Your task to perform on an android device: What's on my calendar today? Image 0: 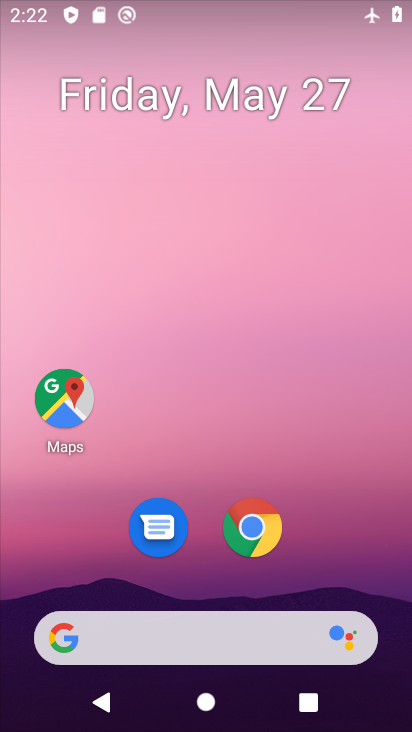
Step 0: drag from (280, 662) to (304, 9)
Your task to perform on an android device: What's on my calendar today? Image 1: 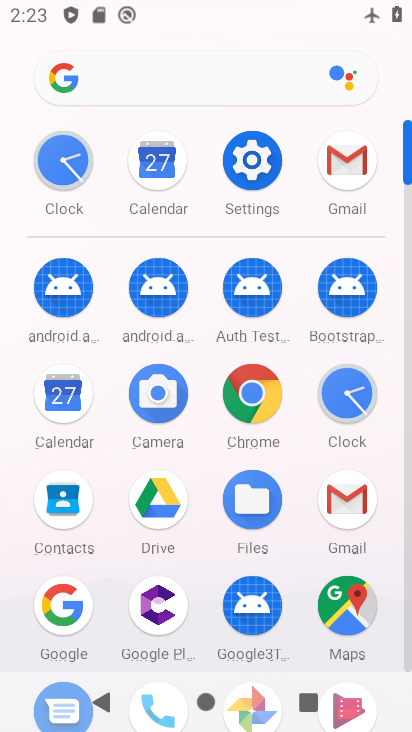
Step 1: click (172, 174)
Your task to perform on an android device: What's on my calendar today? Image 2: 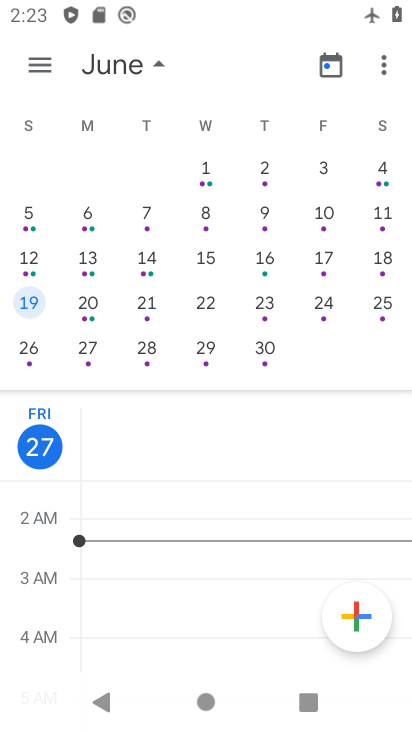
Step 2: click (46, 65)
Your task to perform on an android device: What's on my calendar today? Image 3: 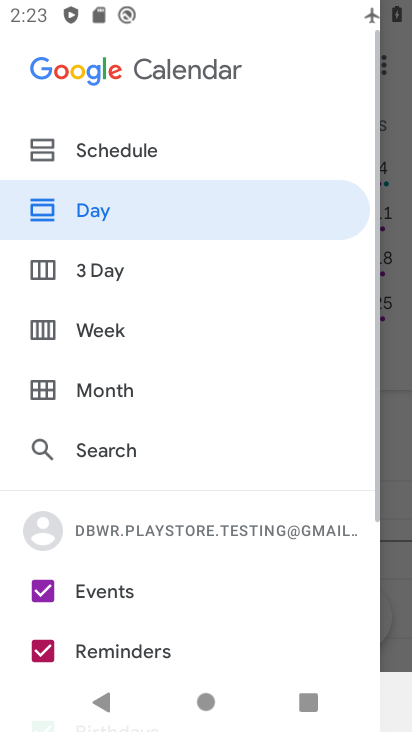
Step 3: click (125, 206)
Your task to perform on an android device: What's on my calendar today? Image 4: 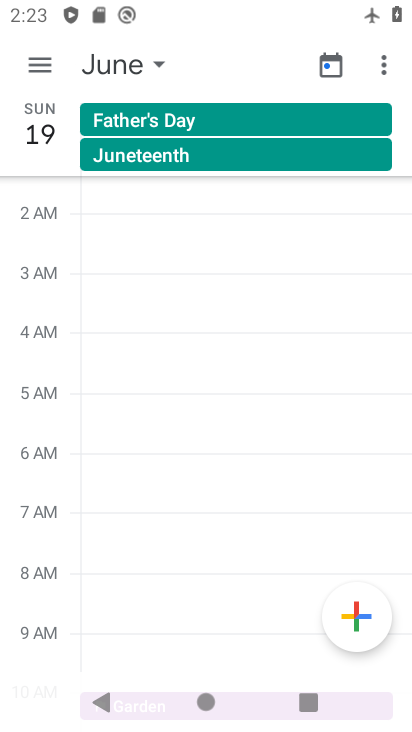
Step 4: click (135, 63)
Your task to perform on an android device: What's on my calendar today? Image 5: 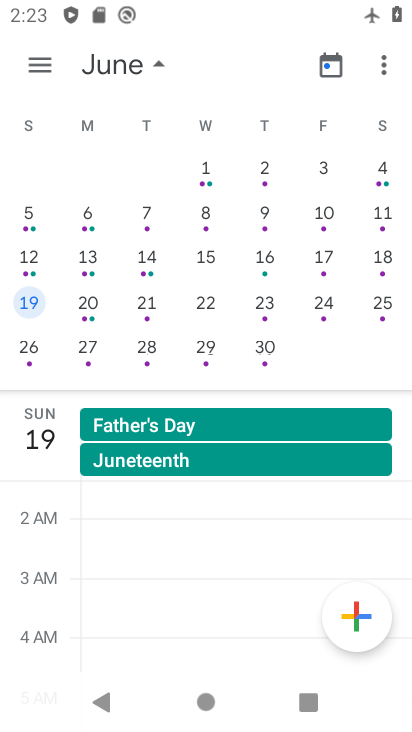
Step 5: drag from (68, 183) to (373, 220)
Your task to perform on an android device: What's on my calendar today? Image 6: 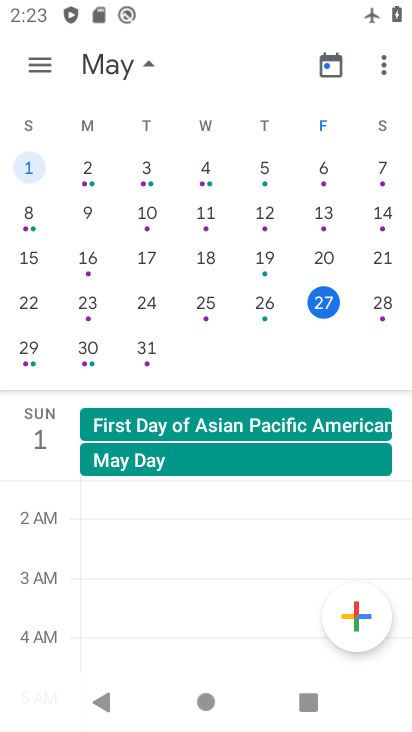
Step 6: click (332, 302)
Your task to perform on an android device: What's on my calendar today? Image 7: 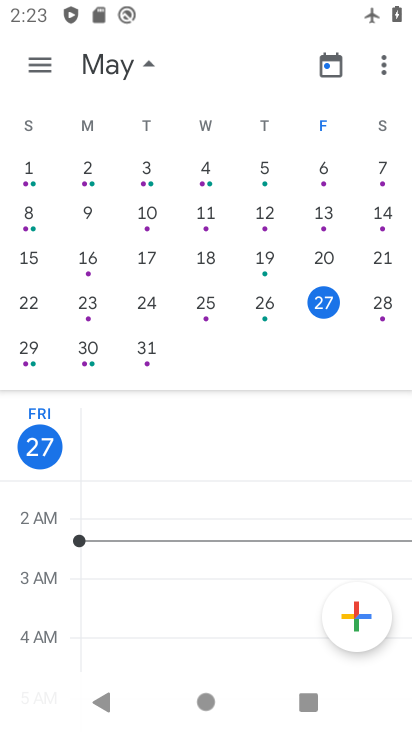
Step 7: task complete